Your task to perform on an android device: check data usage Image 0: 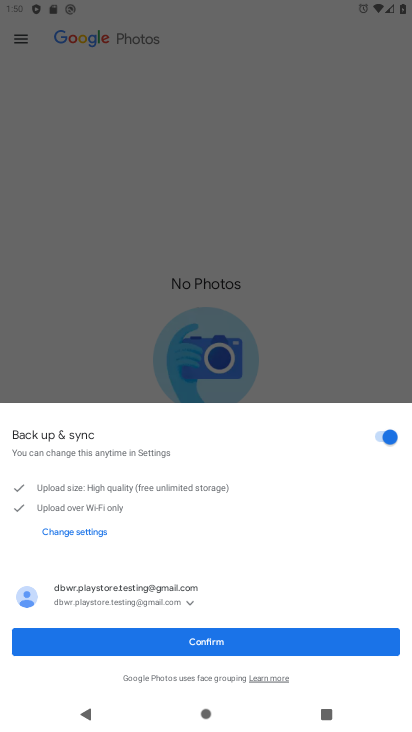
Step 0: press home button
Your task to perform on an android device: check data usage Image 1: 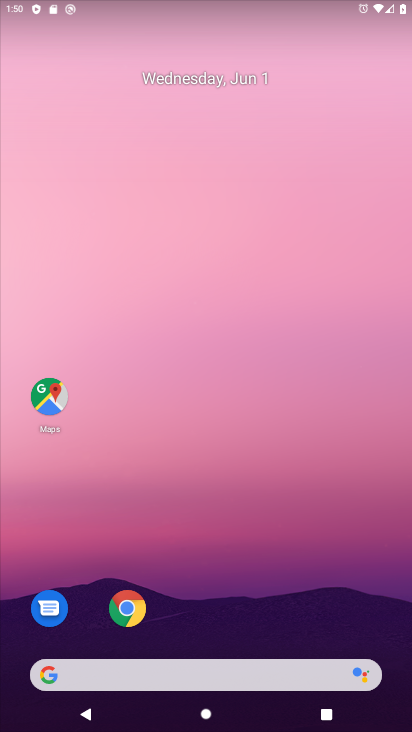
Step 1: drag from (197, 648) to (318, 94)
Your task to perform on an android device: check data usage Image 2: 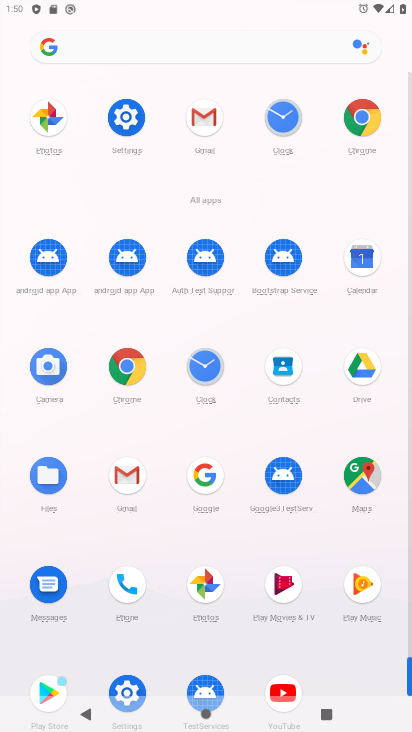
Step 2: drag from (80, 694) to (173, 444)
Your task to perform on an android device: check data usage Image 3: 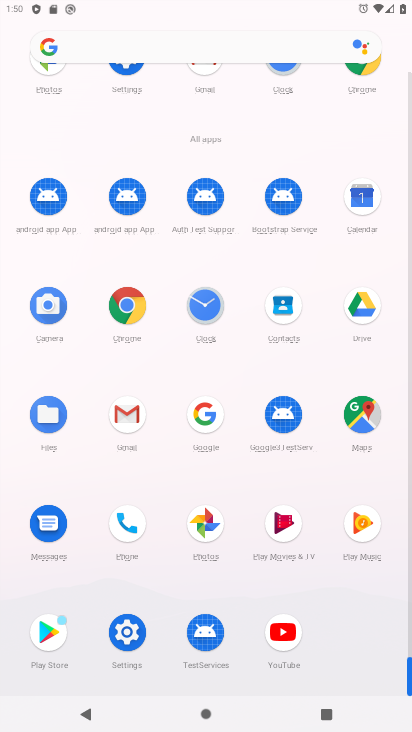
Step 3: click (120, 651)
Your task to perform on an android device: check data usage Image 4: 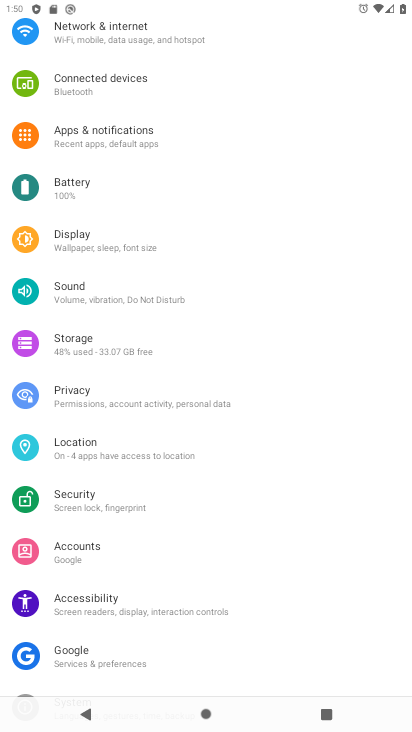
Step 4: drag from (247, 177) to (203, 589)
Your task to perform on an android device: check data usage Image 5: 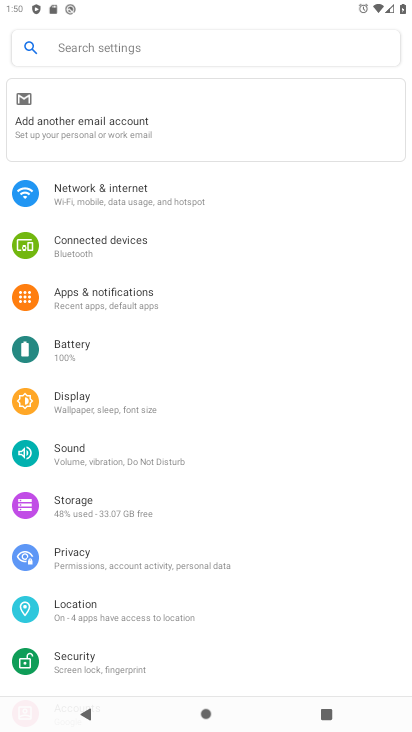
Step 5: click (201, 193)
Your task to perform on an android device: check data usage Image 6: 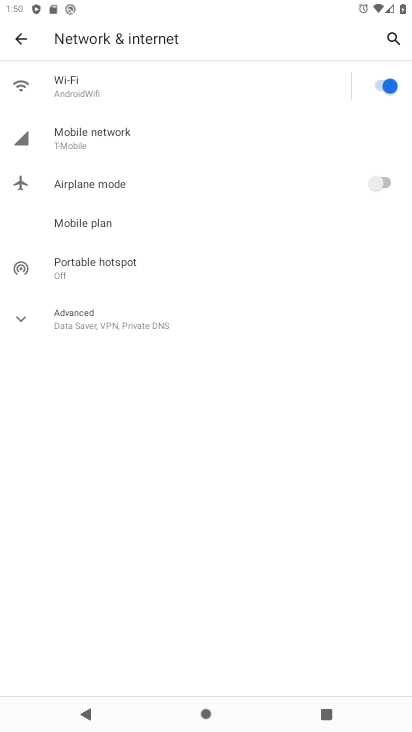
Step 6: click (170, 152)
Your task to perform on an android device: check data usage Image 7: 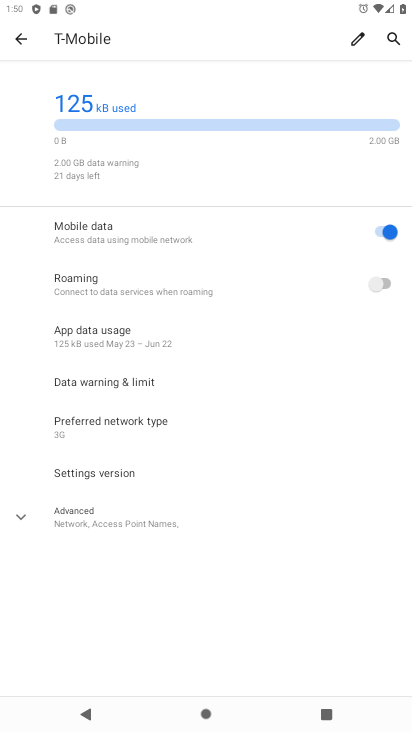
Step 7: click (199, 345)
Your task to perform on an android device: check data usage Image 8: 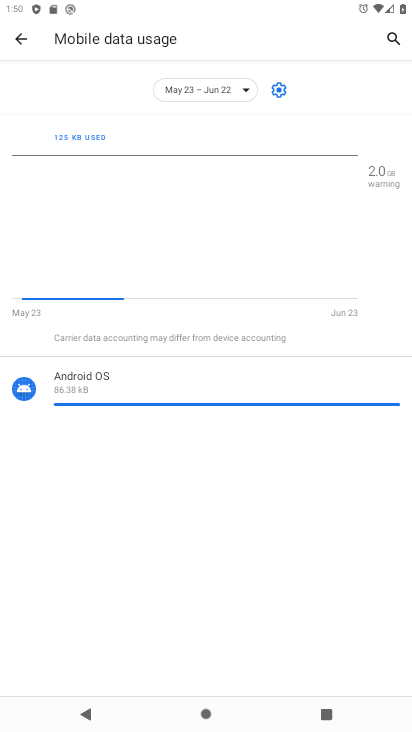
Step 8: task complete